Your task to perform on an android device: Show me the alarms in the clock app Image 0: 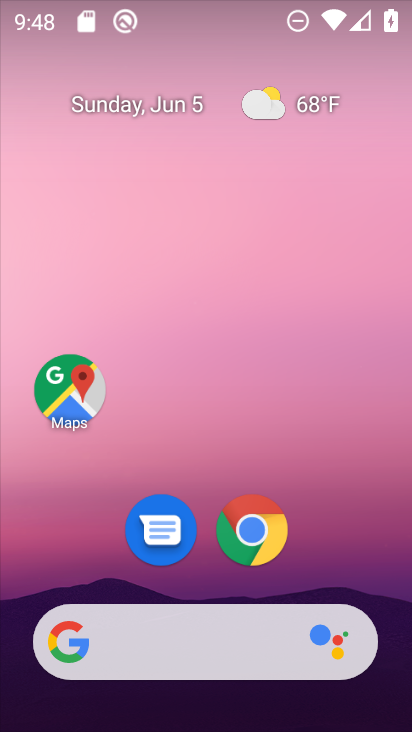
Step 0: drag from (394, 622) to (348, 87)
Your task to perform on an android device: Show me the alarms in the clock app Image 1: 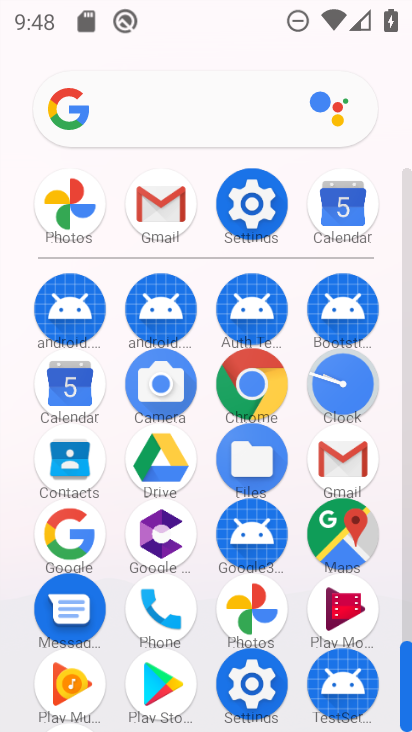
Step 1: click (344, 386)
Your task to perform on an android device: Show me the alarms in the clock app Image 2: 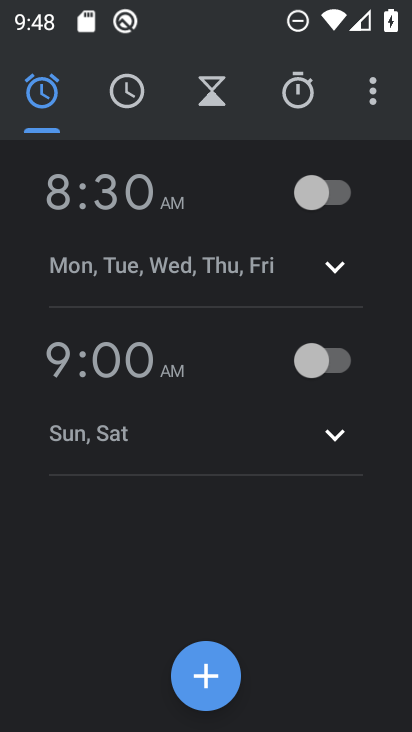
Step 2: task complete